Your task to perform on an android device: turn on wifi Image 0: 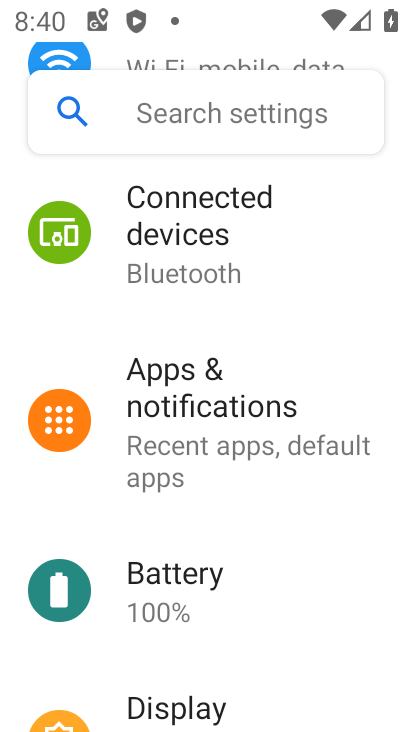
Step 0: drag from (217, 4) to (255, 642)
Your task to perform on an android device: turn on wifi Image 1: 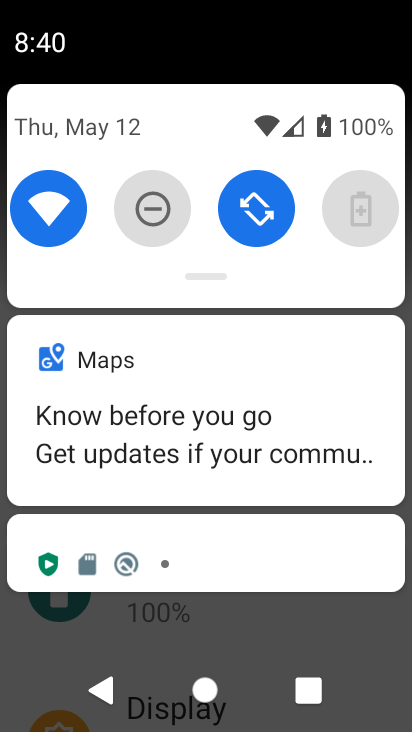
Step 1: task complete